Your task to perform on an android device: snooze an email in the gmail app Image 0: 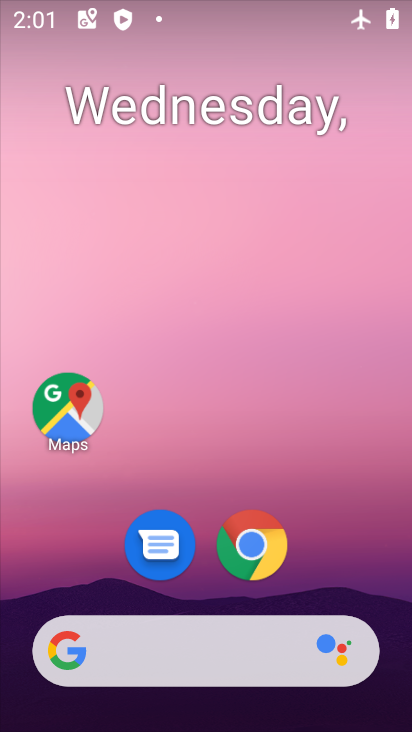
Step 0: drag from (320, 567) to (308, 101)
Your task to perform on an android device: snooze an email in the gmail app Image 1: 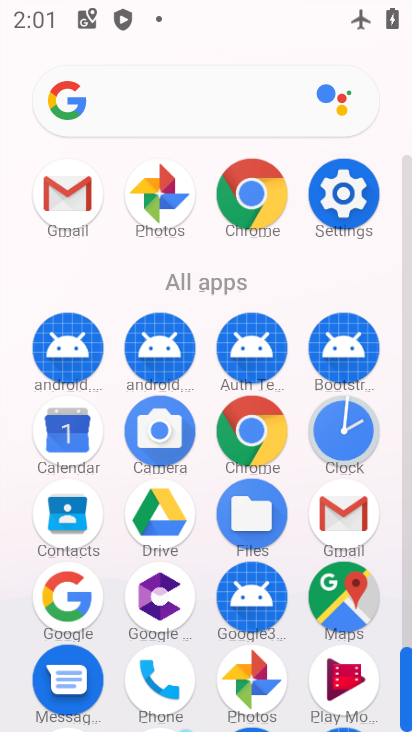
Step 1: click (80, 196)
Your task to perform on an android device: snooze an email in the gmail app Image 2: 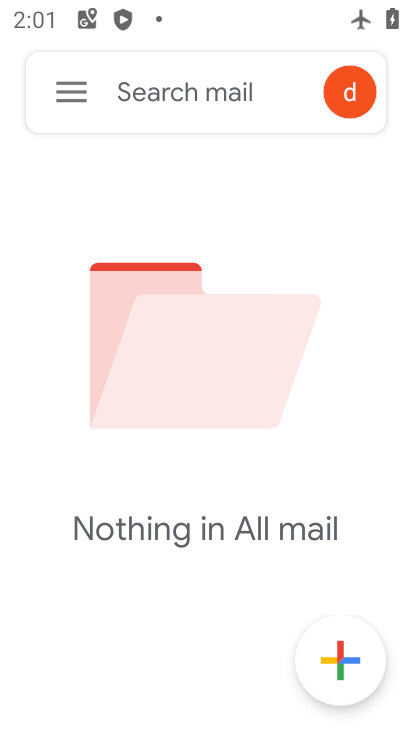
Step 2: click (79, 102)
Your task to perform on an android device: snooze an email in the gmail app Image 3: 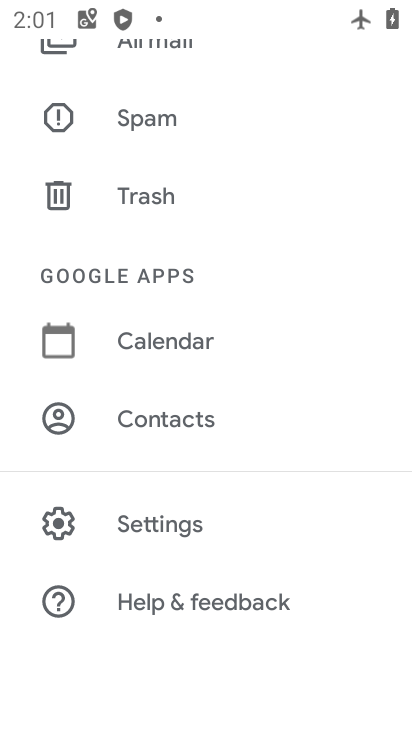
Step 3: drag from (255, 203) to (261, 498)
Your task to perform on an android device: snooze an email in the gmail app Image 4: 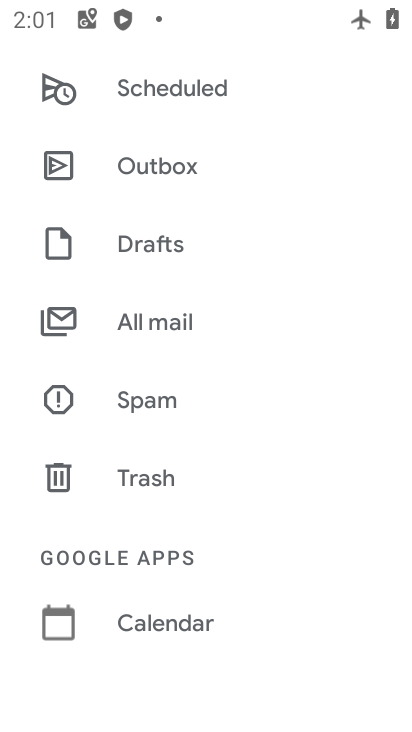
Step 4: click (261, 498)
Your task to perform on an android device: snooze an email in the gmail app Image 5: 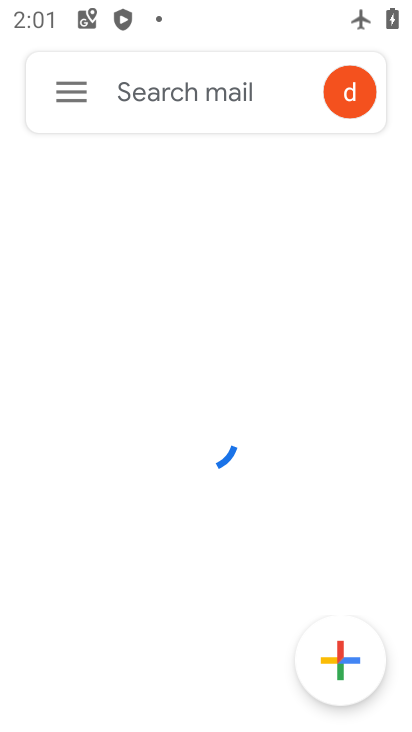
Step 5: click (76, 78)
Your task to perform on an android device: snooze an email in the gmail app Image 6: 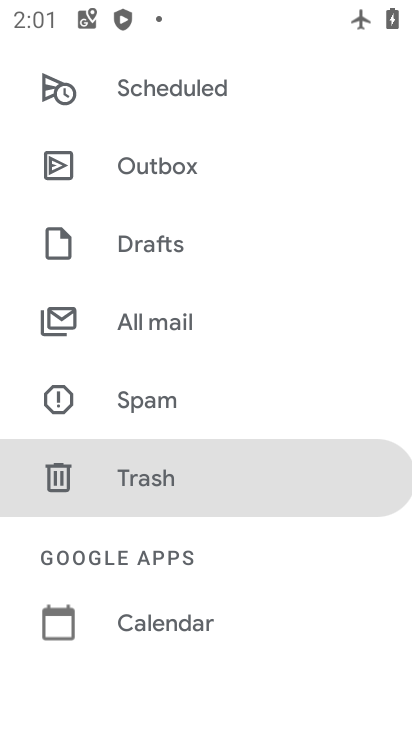
Step 6: drag from (164, 187) to (166, 565)
Your task to perform on an android device: snooze an email in the gmail app Image 7: 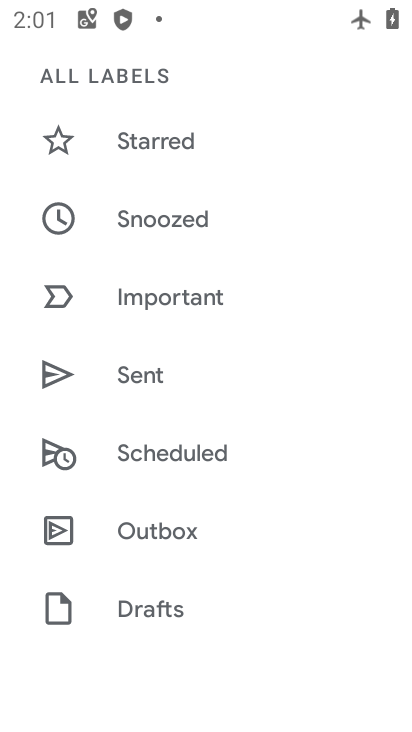
Step 7: drag from (163, 191) to (154, 428)
Your task to perform on an android device: snooze an email in the gmail app Image 8: 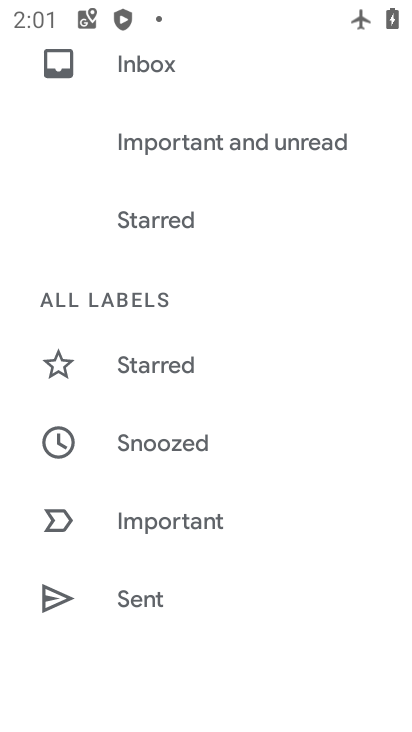
Step 8: click (148, 435)
Your task to perform on an android device: snooze an email in the gmail app Image 9: 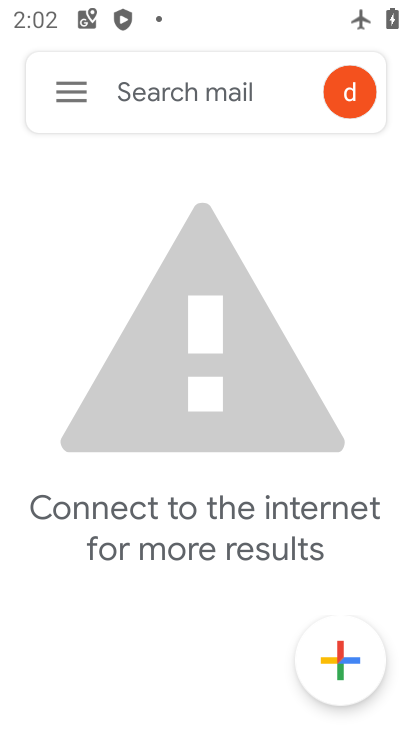
Step 9: task complete